Your task to perform on an android device: turn off priority inbox in the gmail app Image 0: 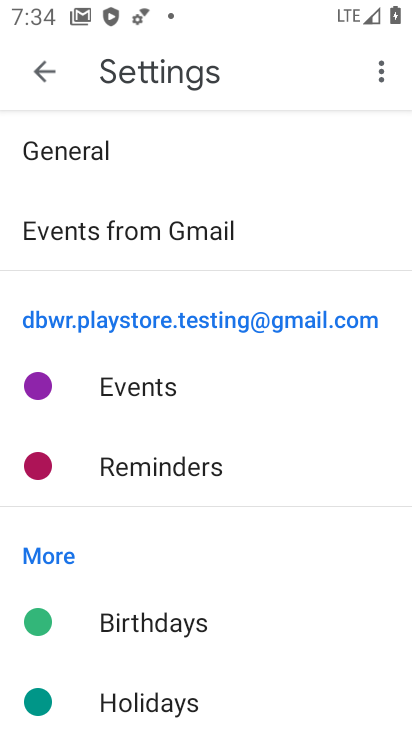
Step 0: press home button
Your task to perform on an android device: turn off priority inbox in the gmail app Image 1: 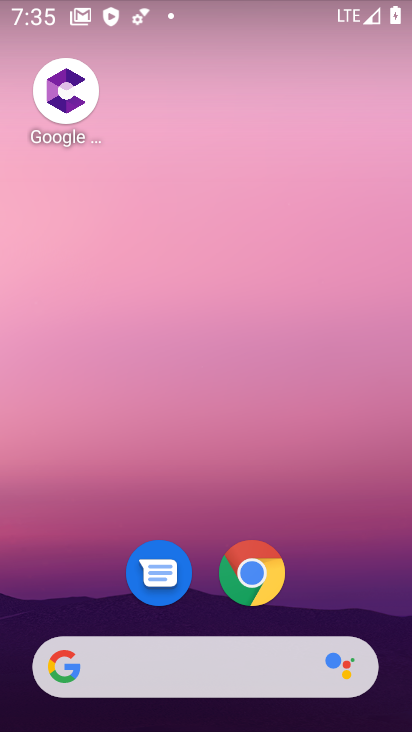
Step 1: drag from (306, 609) to (290, 165)
Your task to perform on an android device: turn off priority inbox in the gmail app Image 2: 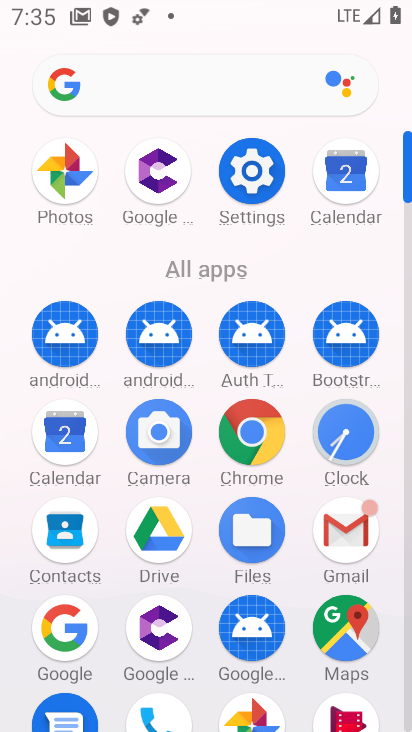
Step 2: click (351, 533)
Your task to perform on an android device: turn off priority inbox in the gmail app Image 3: 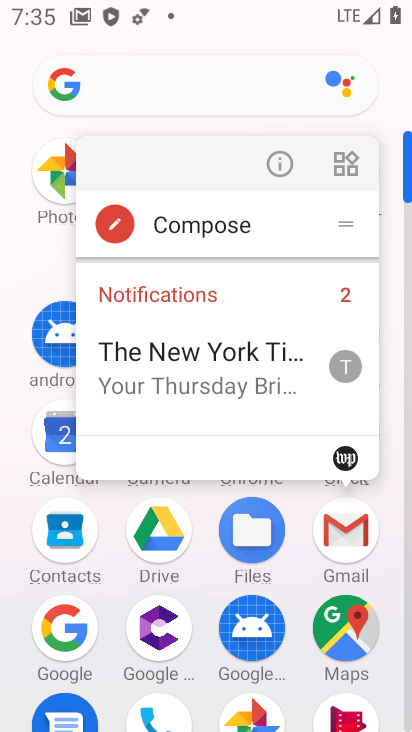
Step 3: click (341, 522)
Your task to perform on an android device: turn off priority inbox in the gmail app Image 4: 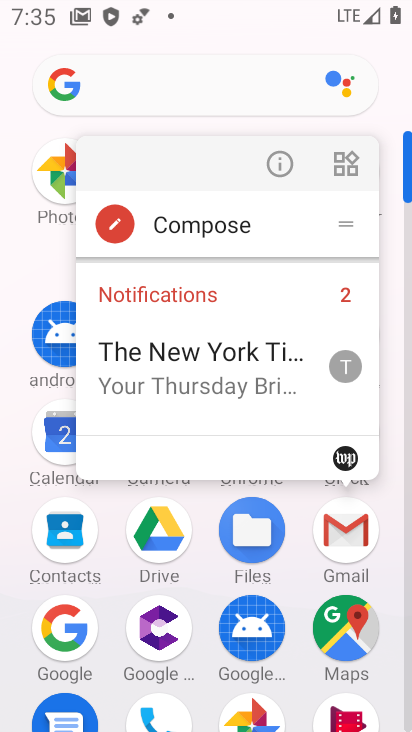
Step 4: click (331, 521)
Your task to perform on an android device: turn off priority inbox in the gmail app Image 5: 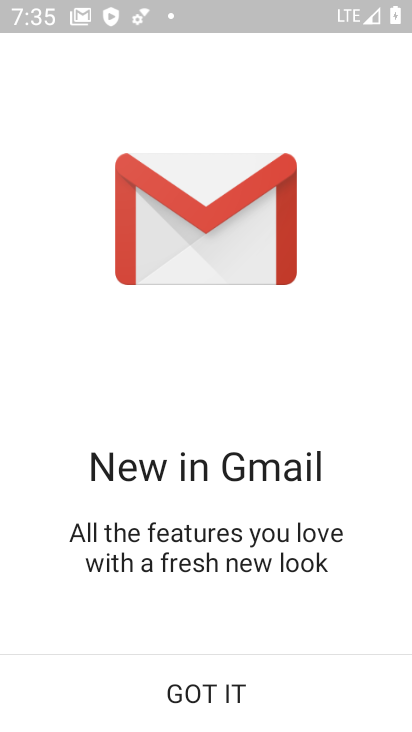
Step 5: click (281, 704)
Your task to perform on an android device: turn off priority inbox in the gmail app Image 6: 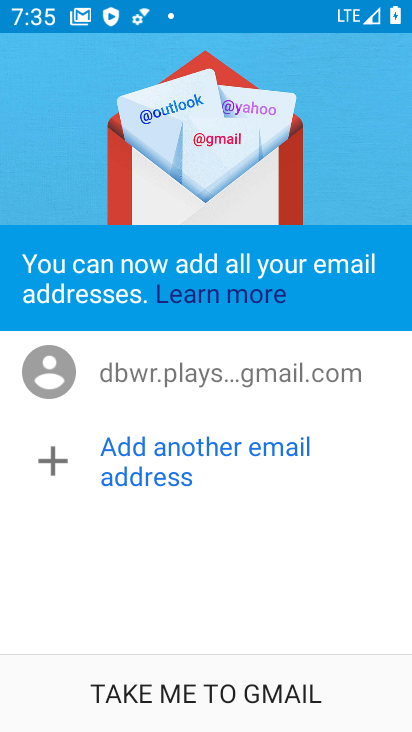
Step 6: click (227, 693)
Your task to perform on an android device: turn off priority inbox in the gmail app Image 7: 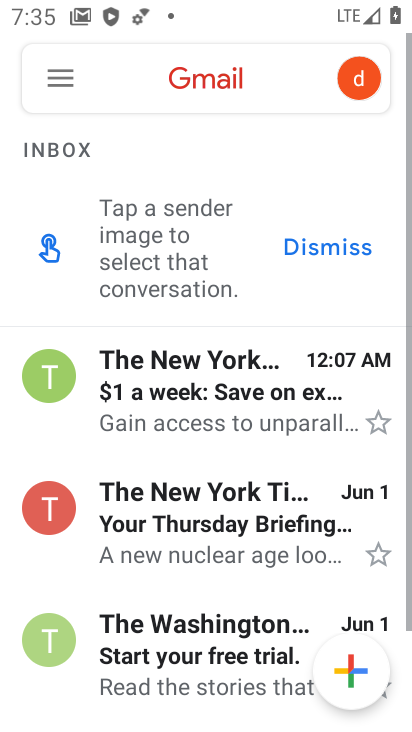
Step 7: click (41, 61)
Your task to perform on an android device: turn off priority inbox in the gmail app Image 8: 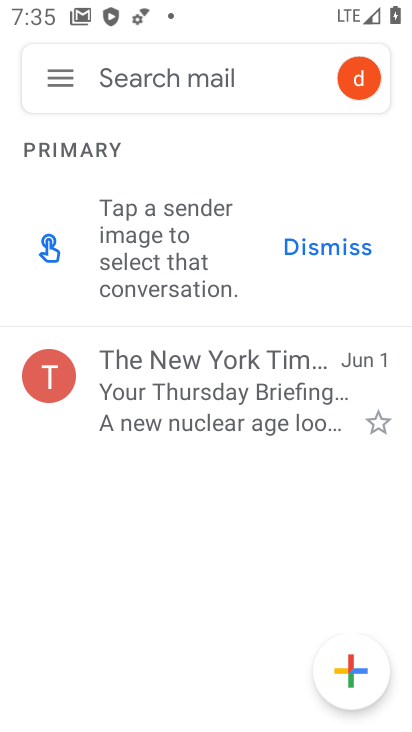
Step 8: click (68, 59)
Your task to perform on an android device: turn off priority inbox in the gmail app Image 9: 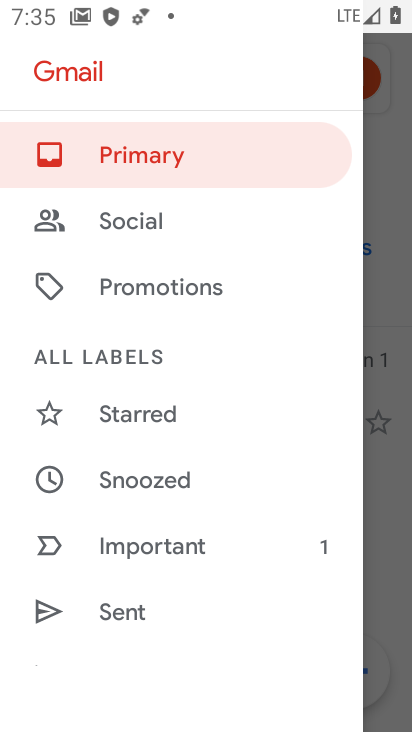
Step 9: drag from (166, 588) to (170, 236)
Your task to perform on an android device: turn off priority inbox in the gmail app Image 10: 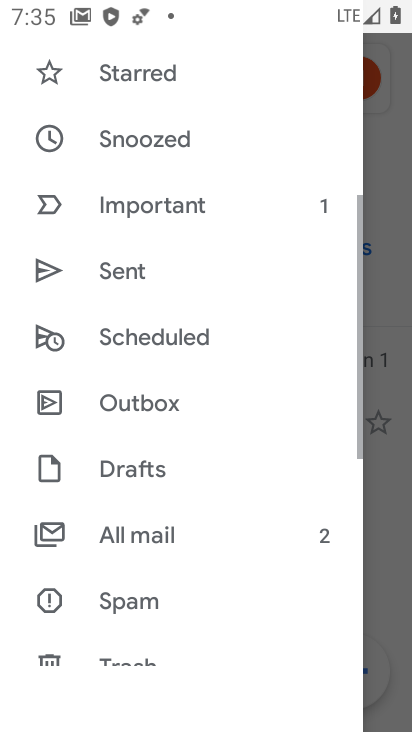
Step 10: drag from (130, 551) to (185, 227)
Your task to perform on an android device: turn off priority inbox in the gmail app Image 11: 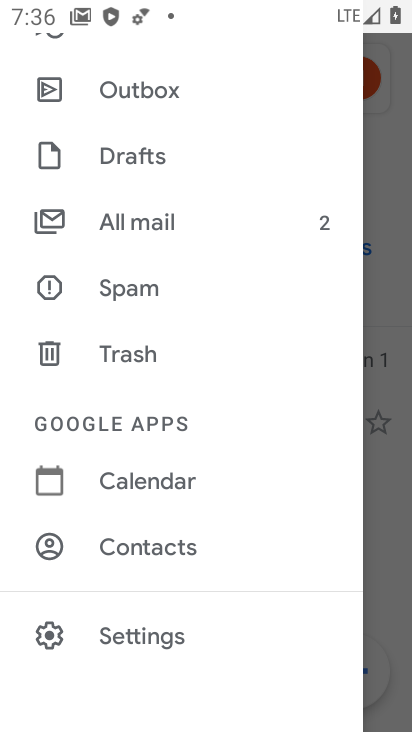
Step 11: drag from (152, 604) to (168, 296)
Your task to perform on an android device: turn off priority inbox in the gmail app Image 12: 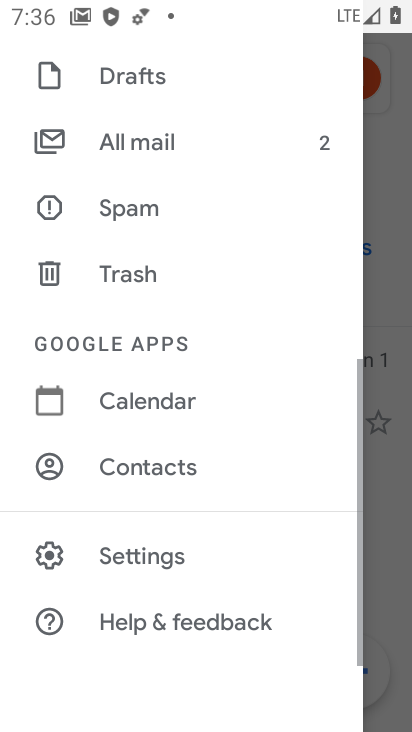
Step 12: click (161, 544)
Your task to perform on an android device: turn off priority inbox in the gmail app Image 13: 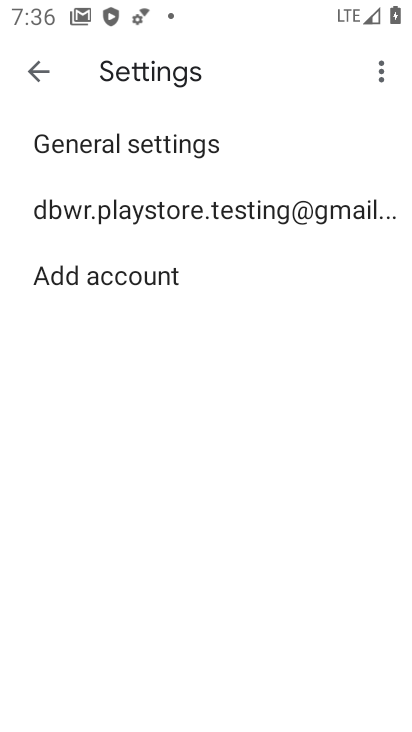
Step 13: click (178, 215)
Your task to perform on an android device: turn off priority inbox in the gmail app Image 14: 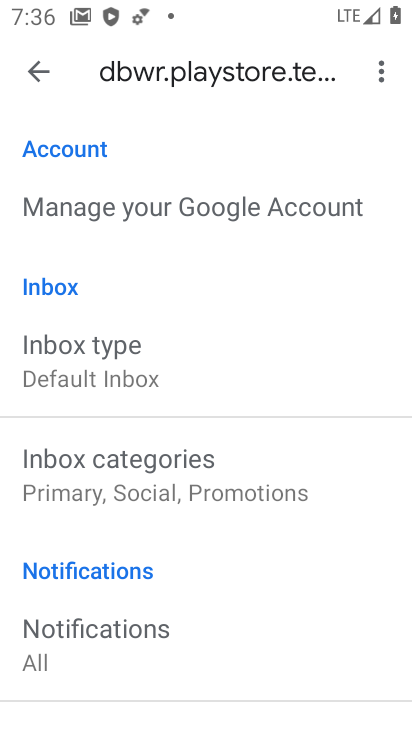
Step 14: task complete